Your task to perform on an android device: toggle pop-ups in chrome Image 0: 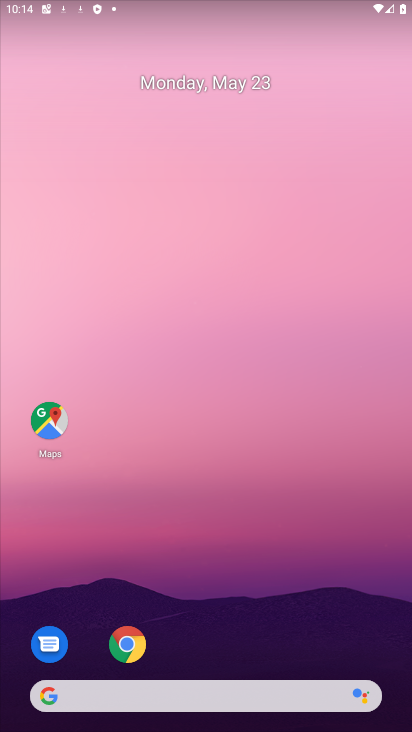
Step 0: drag from (275, 721) to (181, 89)
Your task to perform on an android device: toggle pop-ups in chrome Image 1: 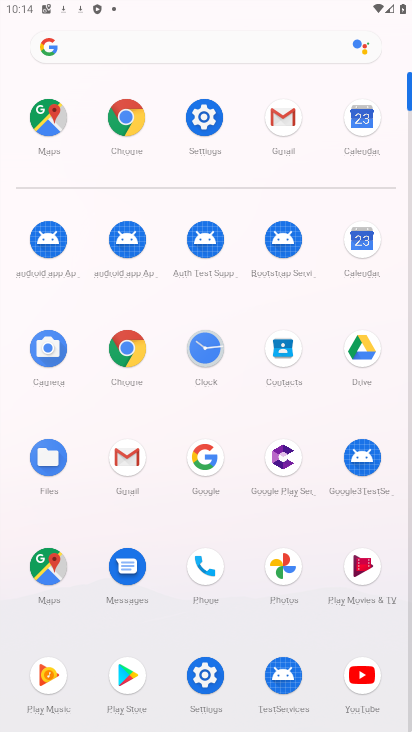
Step 1: click (123, 128)
Your task to perform on an android device: toggle pop-ups in chrome Image 2: 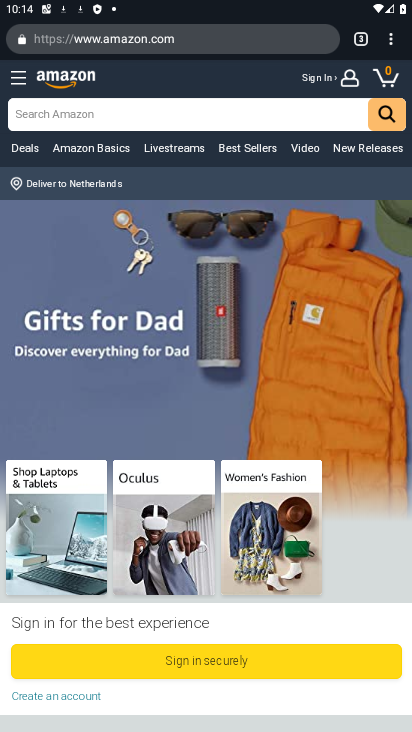
Step 2: click (394, 38)
Your task to perform on an android device: toggle pop-ups in chrome Image 3: 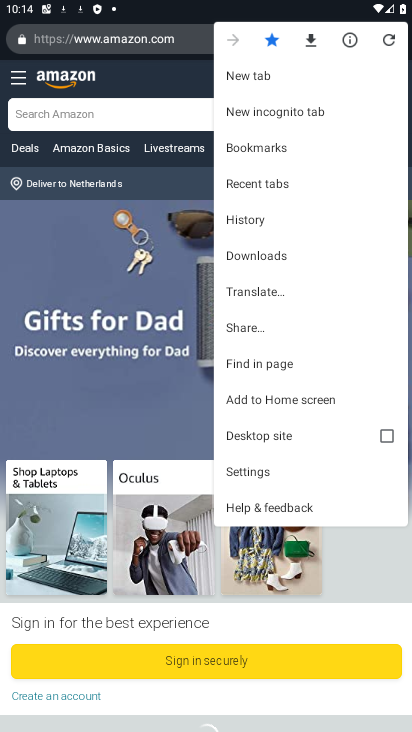
Step 3: click (277, 472)
Your task to perform on an android device: toggle pop-ups in chrome Image 4: 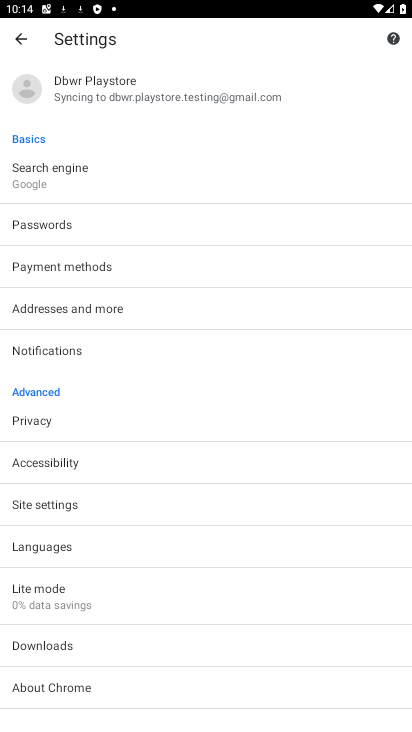
Step 4: click (64, 512)
Your task to perform on an android device: toggle pop-ups in chrome Image 5: 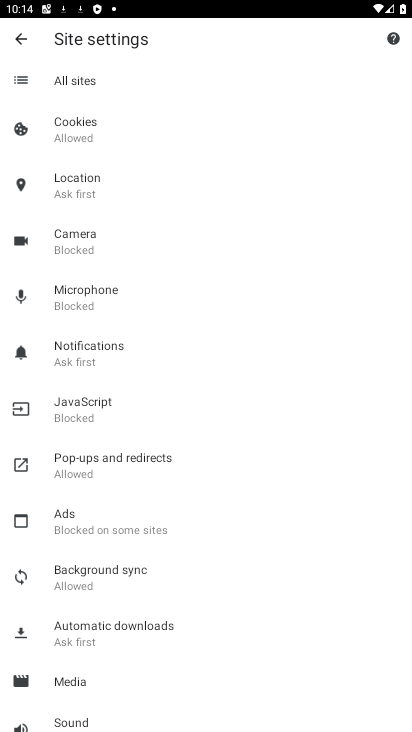
Step 5: click (142, 472)
Your task to perform on an android device: toggle pop-ups in chrome Image 6: 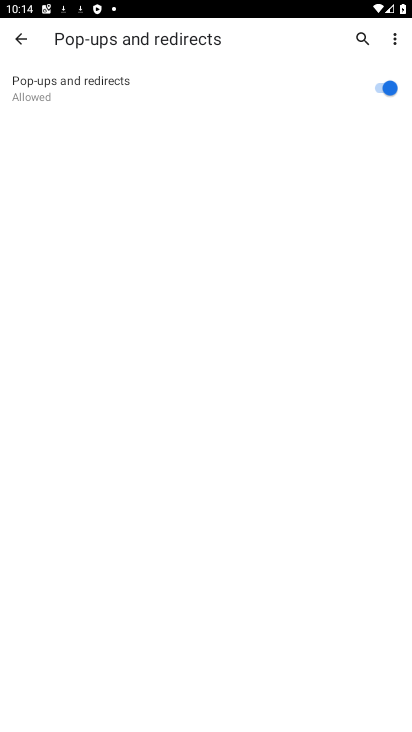
Step 6: task complete